Your task to perform on an android device: read, delete, or share a saved page in the chrome app Image 0: 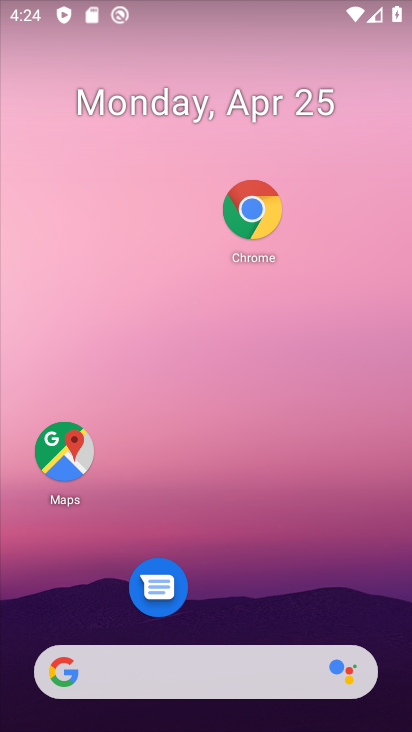
Step 0: click (244, 219)
Your task to perform on an android device: read, delete, or share a saved page in the chrome app Image 1: 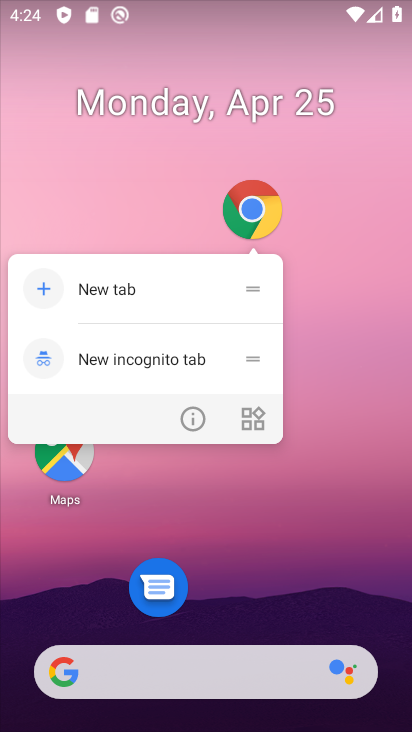
Step 1: click (244, 219)
Your task to perform on an android device: read, delete, or share a saved page in the chrome app Image 2: 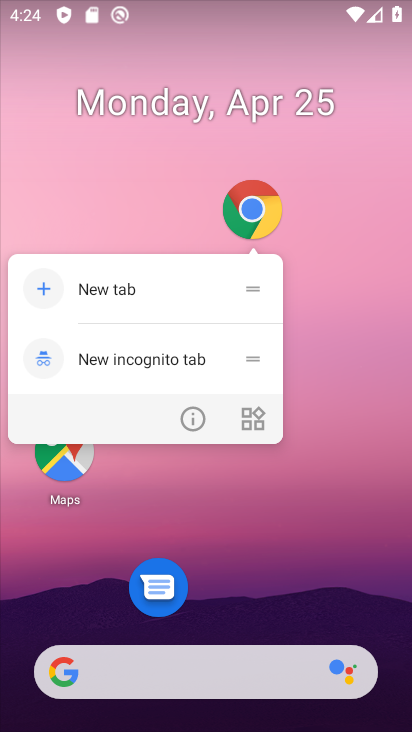
Step 2: click (244, 219)
Your task to perform on an android device: read, delete, or share a saved page in the chrome app Image 3: 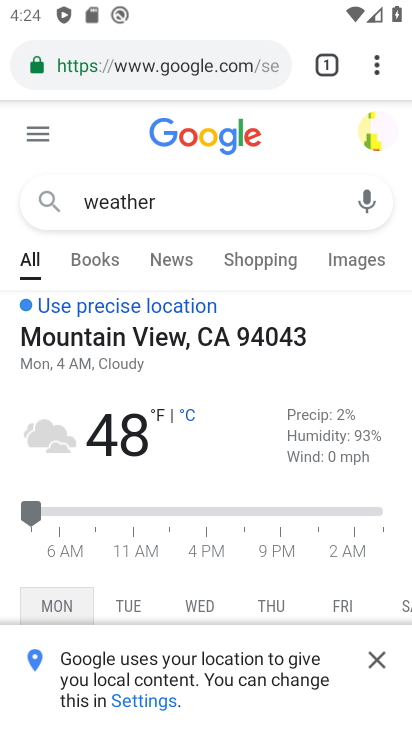
Step 3: drag from (366, 87) to (252, 407)
Your task to perform on an android device: read, delete, or share a saved page in the chrome app Image 4: 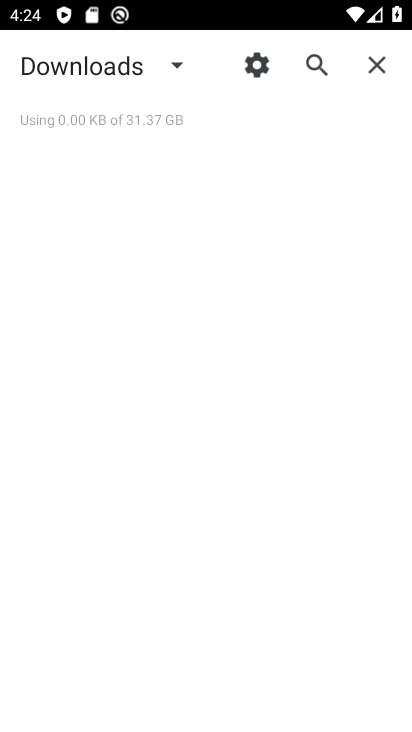
Step 4: click (172, 81)
Your task to perform on an android device: read, delete, or share a saved page in the chrome app Image 5: 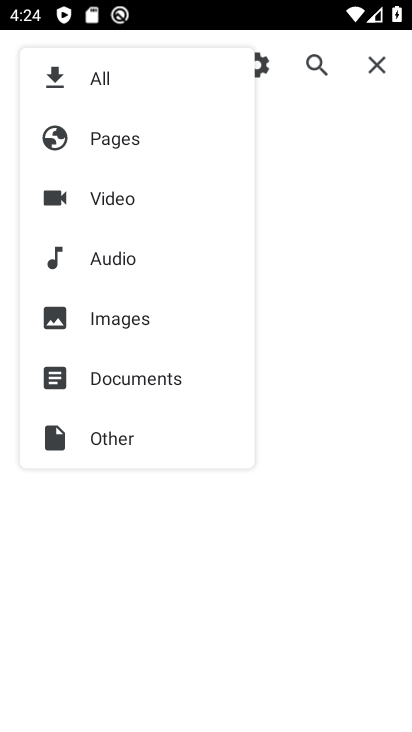
Step 5: click (164, 140)
Your task to perform on an android device: read, delete, or share a saved page in the chrome app Image 6: 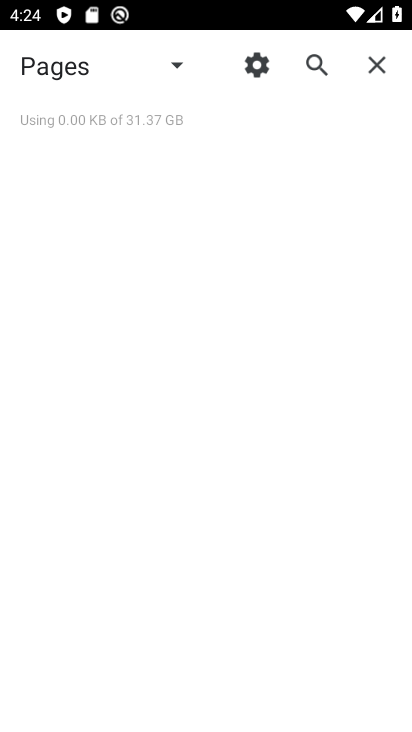
Step 6: task complete